Your task to perform on an android device: turn on sleep mode Image 0: 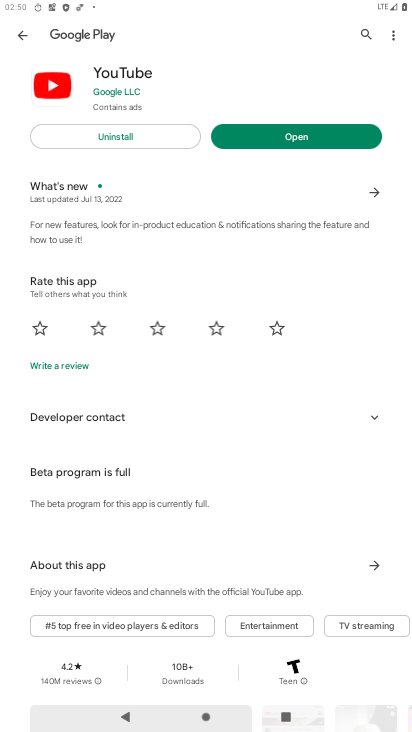
Step 0: press home button
Your task to perform on an android device: turn on sleep mode Image 1: 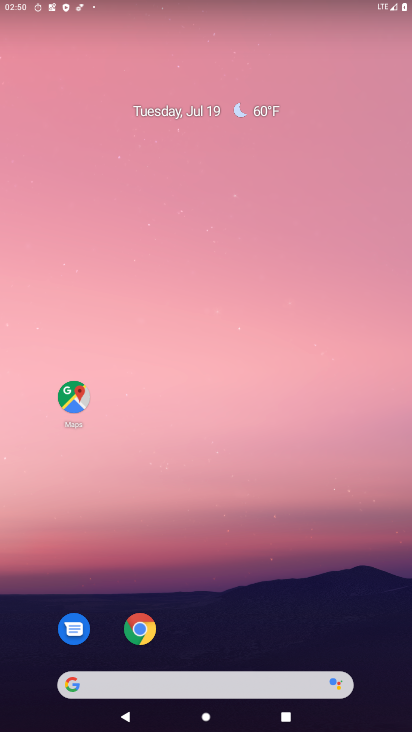
Step 1: drag from (208, 624) to (210, 212)
Your task to perform on an android device: turn on sleep mode Image 2: 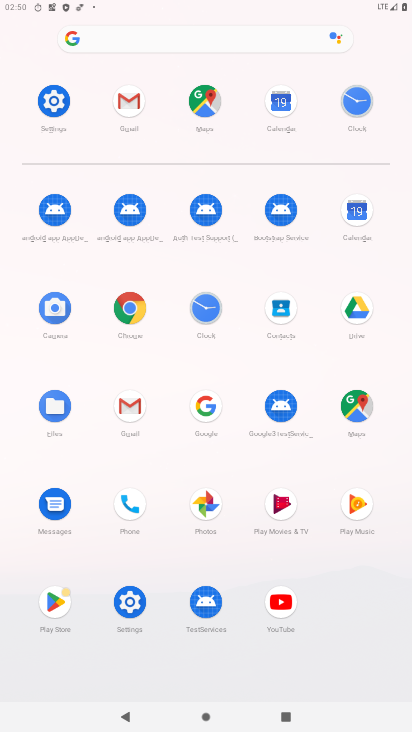
Step 2: click (44, 119)
Your task to perform on an android device: turn on sleep mode Image 3: 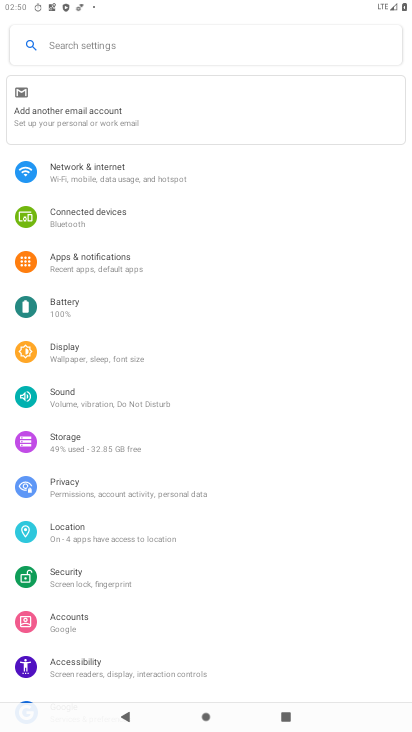
Step 3: click (110, 363)
Your task to perform on an android device: turn on sleep mode Image 4: 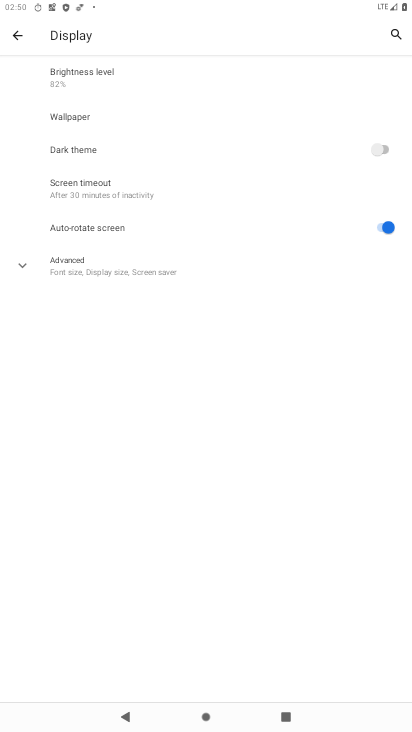
Step 4: click (124, 179)
Your task to perform on an android device: turn on sleep mode Image 5: 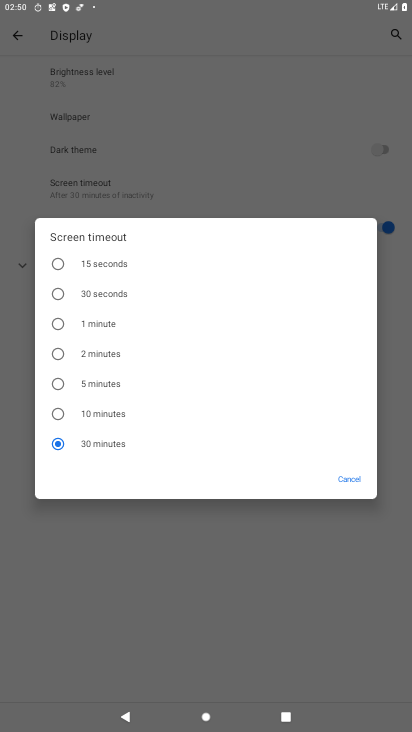
Step 5: click (112, 267)
Your task to perform on an android device: turn on sleep mode Image 6: 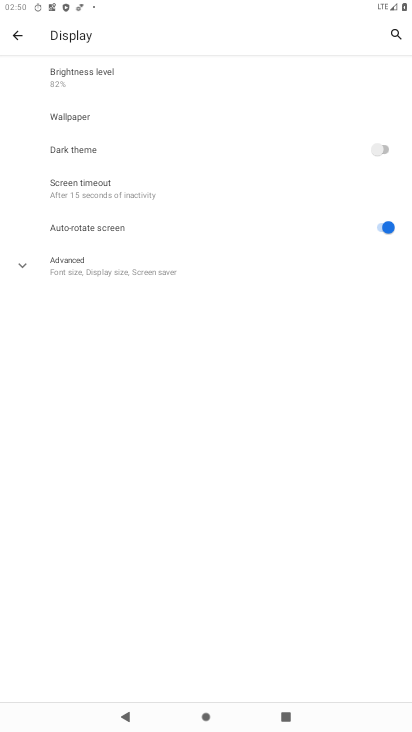
Step 6: task complete